Your task to perform on an android device: Go to privacy settings Image 0: 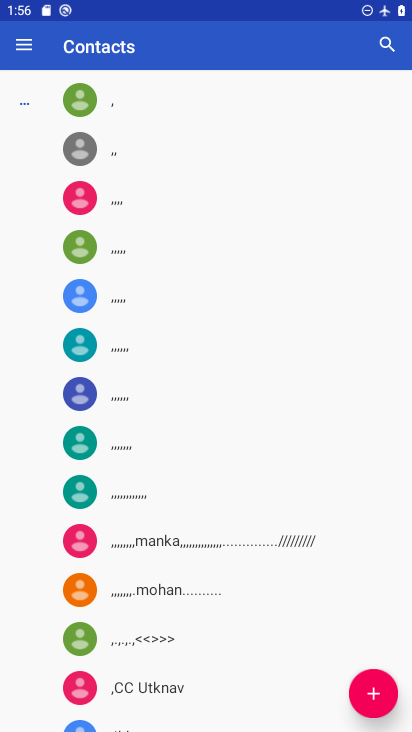
Step 0: press home button
Your task to perform on an android device: Go to privacy settings Image 1: 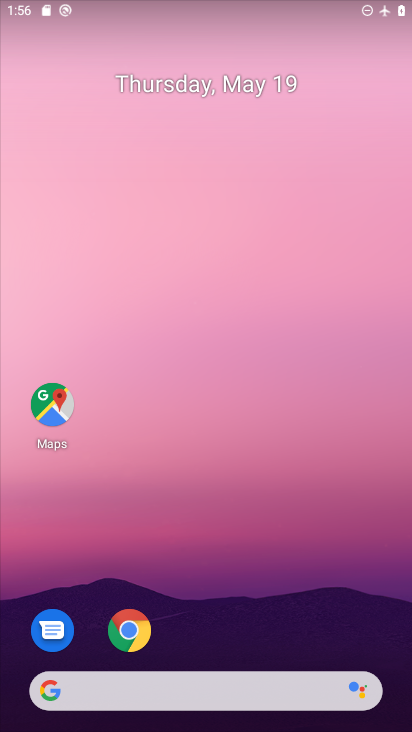
Step 1: drag from (206, 658) to (166, 137)
Your task to perform on an android device: Go to privacy settings Image 2: 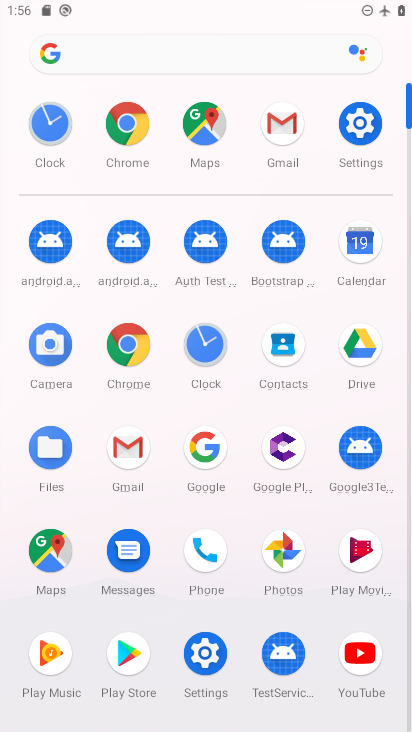
Step 2: click (357, 140)
Your task to perform on an android device: Go to privacy settings Image 3: 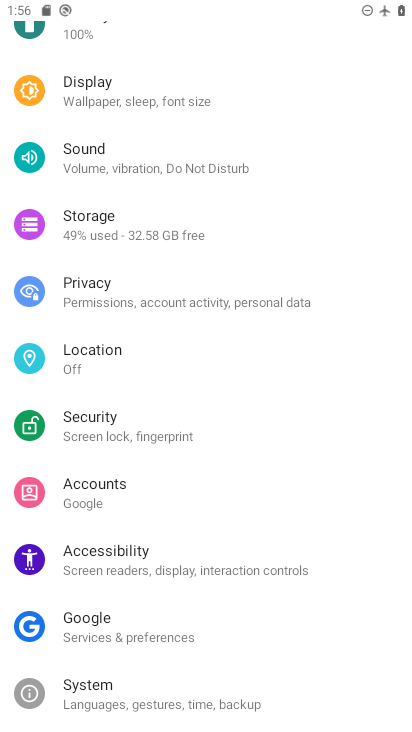
Step 3: click (117, 289)
Your task to perform on an android device: Go to privacy settings Image 4: 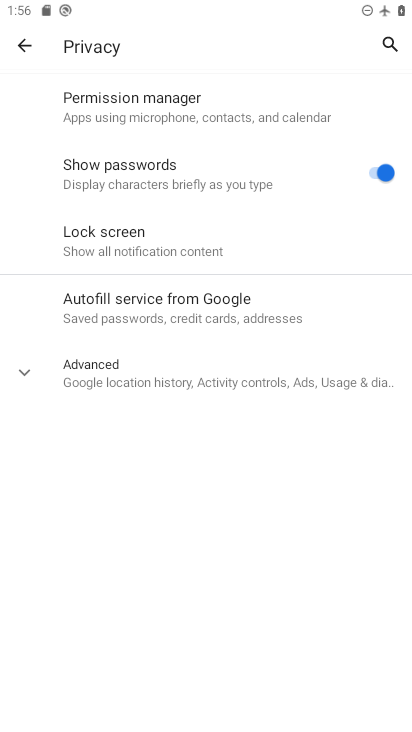
Step 4: click (126, 362)
Your task to perform on an android device: Go to privacy settings Image 5: 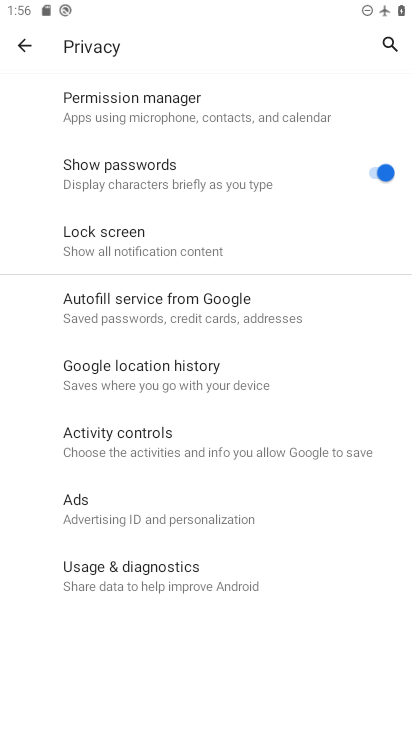
Step 5: task complete